Your task to perform on an android device: read, delete, or share a saved page in the chrome app Image 0: 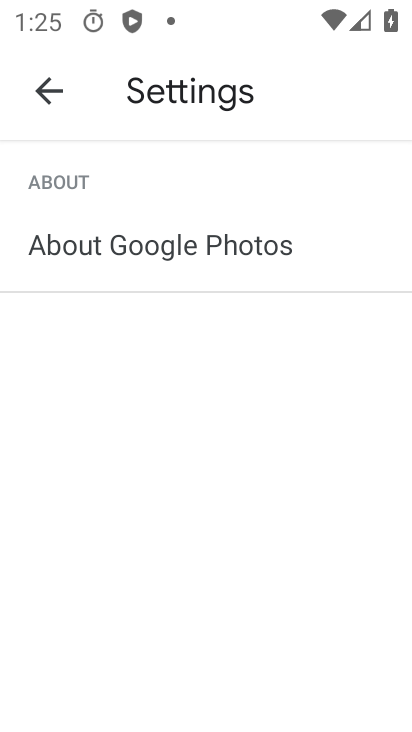
Step 0: press home button
Your task to perform on an android device: read, delete, or share a saved page in the chrome app Image 1: 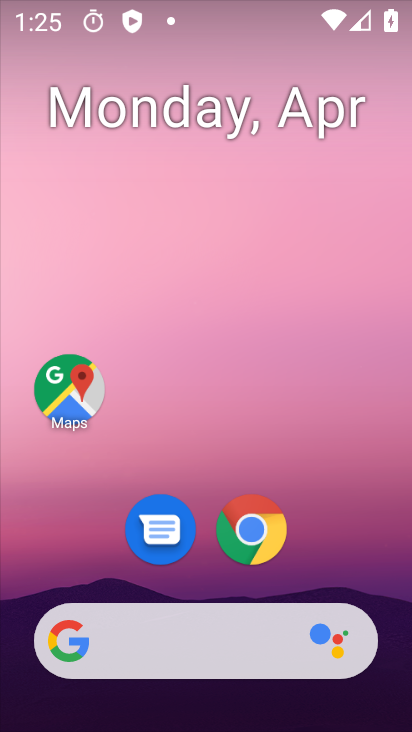
Step 1: drag from (347, 508) to (340, 249)
Your task to perform on an android device: read, delete, or share a saved page in the chrome app Image 2: 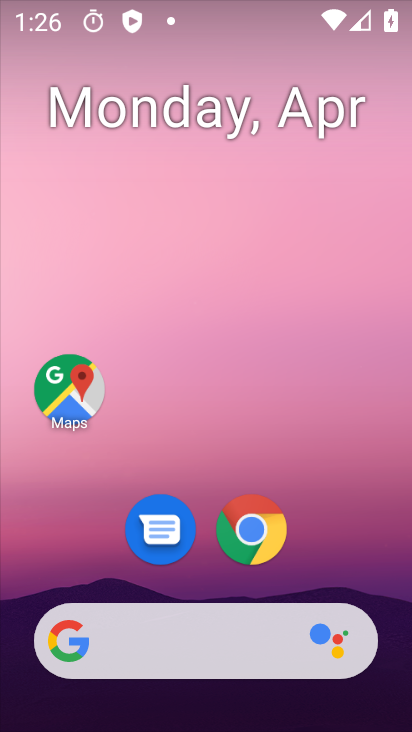
Step 2: drag from (248, 640) to (299, 268)
Your task to perform on an android device: read, delete, or share a saved page in the chrome app Image 3: 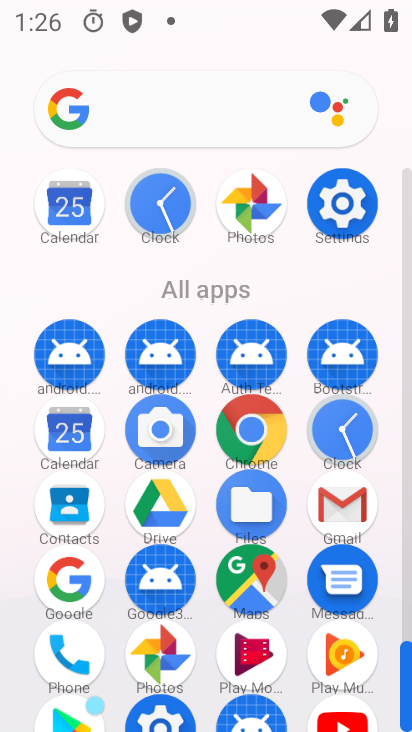
Step 3: click (324, 204)
Your task to perform on an android device: read, delete, or share a saved page in the chrome app Image 4: 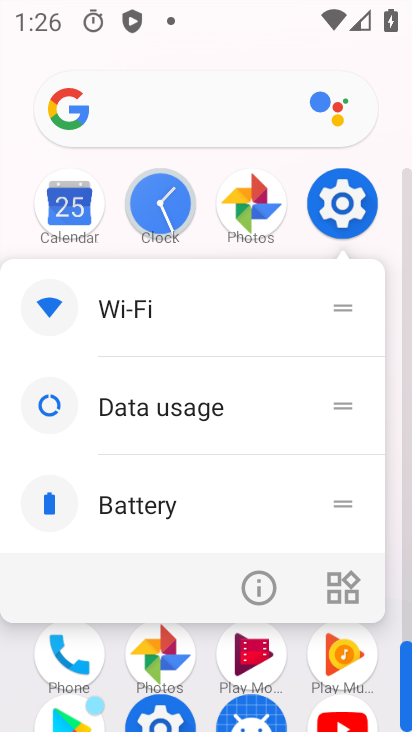
Step 4: press back button
Your task to perform on an android device: read, delete, or share a saved page in the chrome app Image 5: 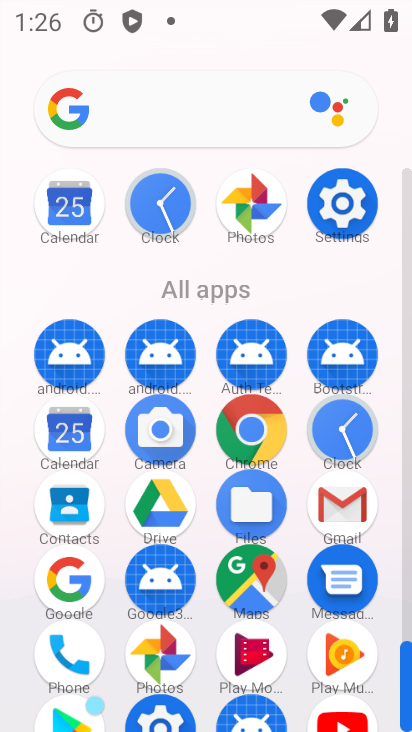
Step 5: click (239, 425)
Your task to perform on an android device: read, delete, or share a saved page in the chrome app Image 6: 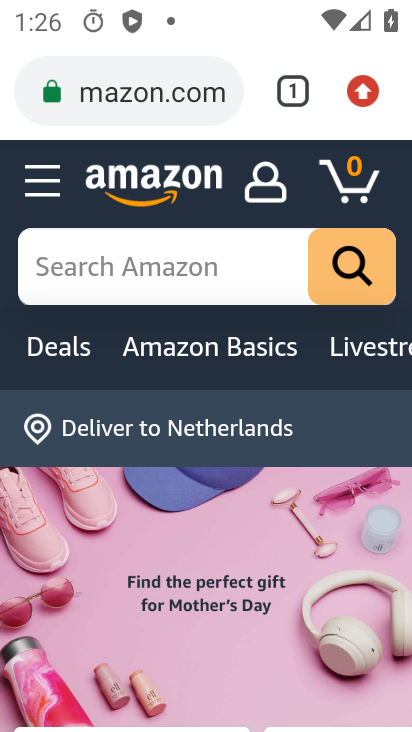
Step 6: click (371, 85)
Your task to perform on an android device: read, delete, or share a saved page in the chrome app Image 7: 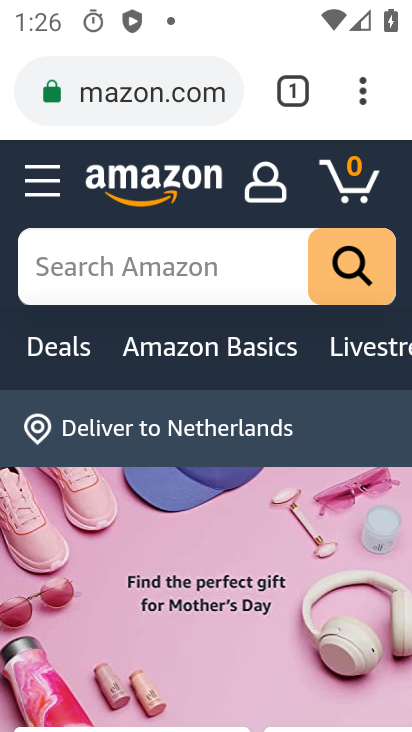
Step 7: click (352, 93)
Your task to perform on an android device: read, delete, or share a saved page in the chrome app Image 8: 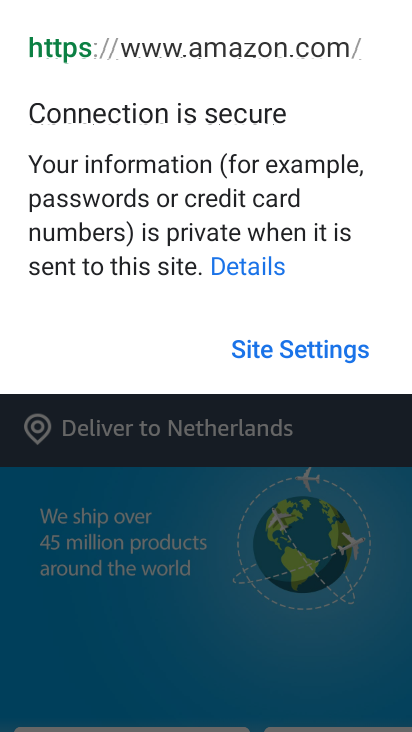
Step 8: press back button
Your task to perform on an android device: read, delete, or share a saved page in the chrome app Image 9: 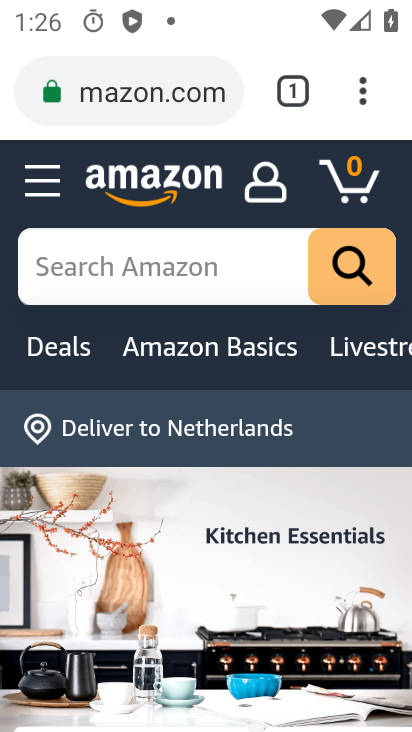
Step 9: click (344, 102)
Your task to perform on an android device: read, delete, or share a saved page in the chrome app Image 10: 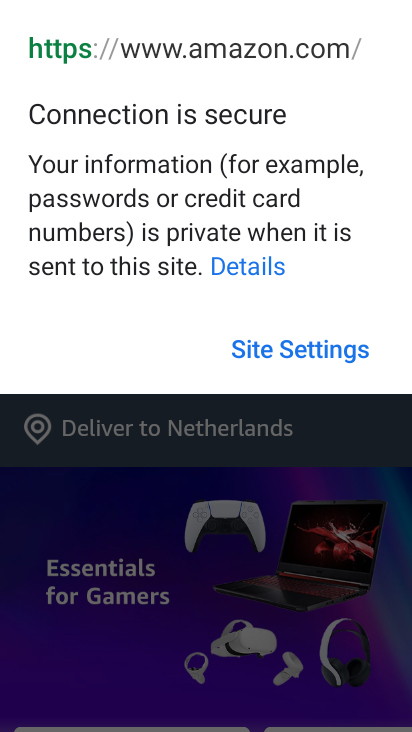
Step 10: press back button
Your task to perform on an android device: read, delete, or share a saved page in the chrome app Image 11: 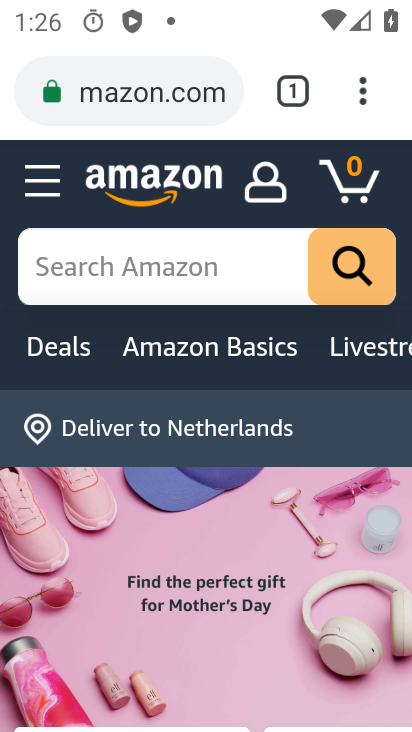
Step 11: click (334, 98)
Your task to perform on an android device: read, delete, or share a saved page in the chrome app Image 12: 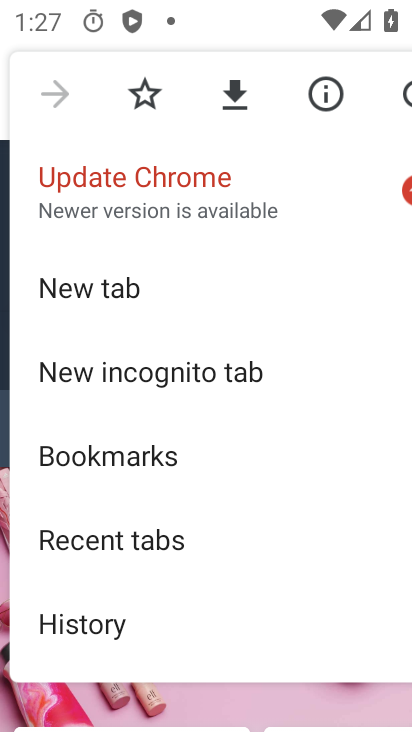
Step 12: drag from (161, 571) to (146, 263)
Your task to perform on an android device: read, delete, or share a saved page in the chrome app Image 13: 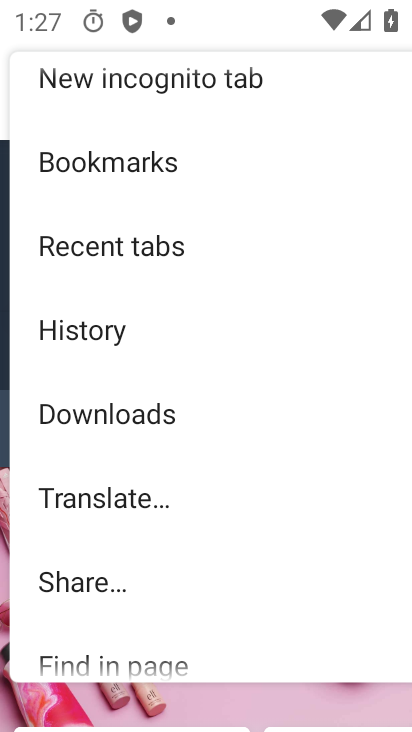
Step 13: click (145, 408)
Your task to perform on an android device: read, delete, or share a saved page in the chrome app Image 14: 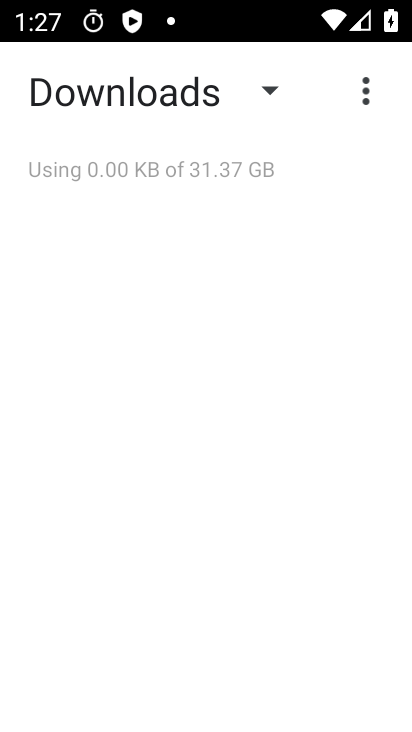
Step 14: click (275, 94)
Your task to perform on an android device: read, delete, or share a saved page in the chrome app Image 15: 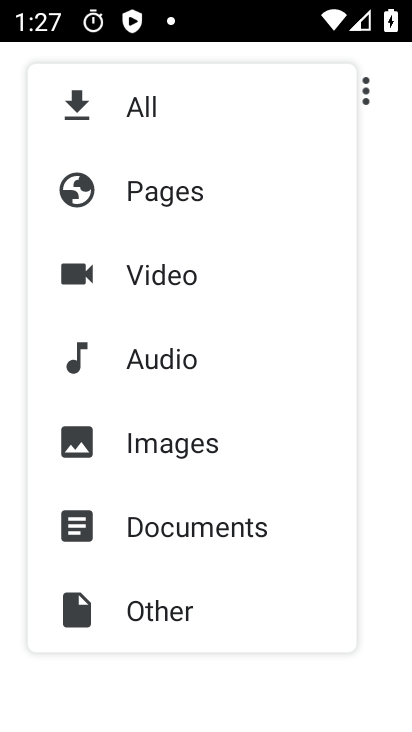
Step 15: click (157, 187)
Your task to perform on an android device: read, delete, or share a saved page in the chrome app Image 16: 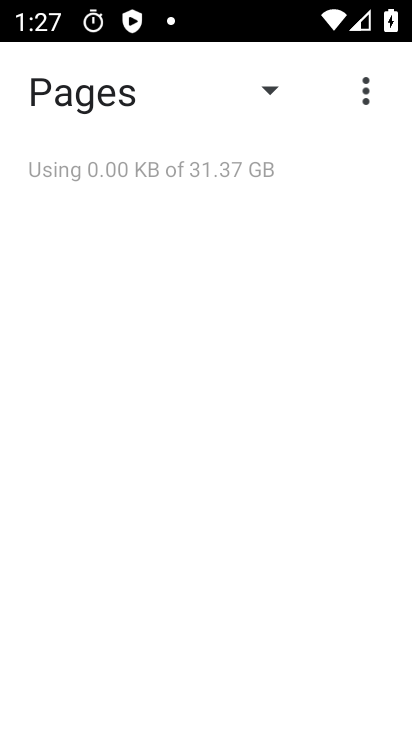
Step 16: task complete